Your task to perform on an android device: turn on javascript in the chrome app Image 0: 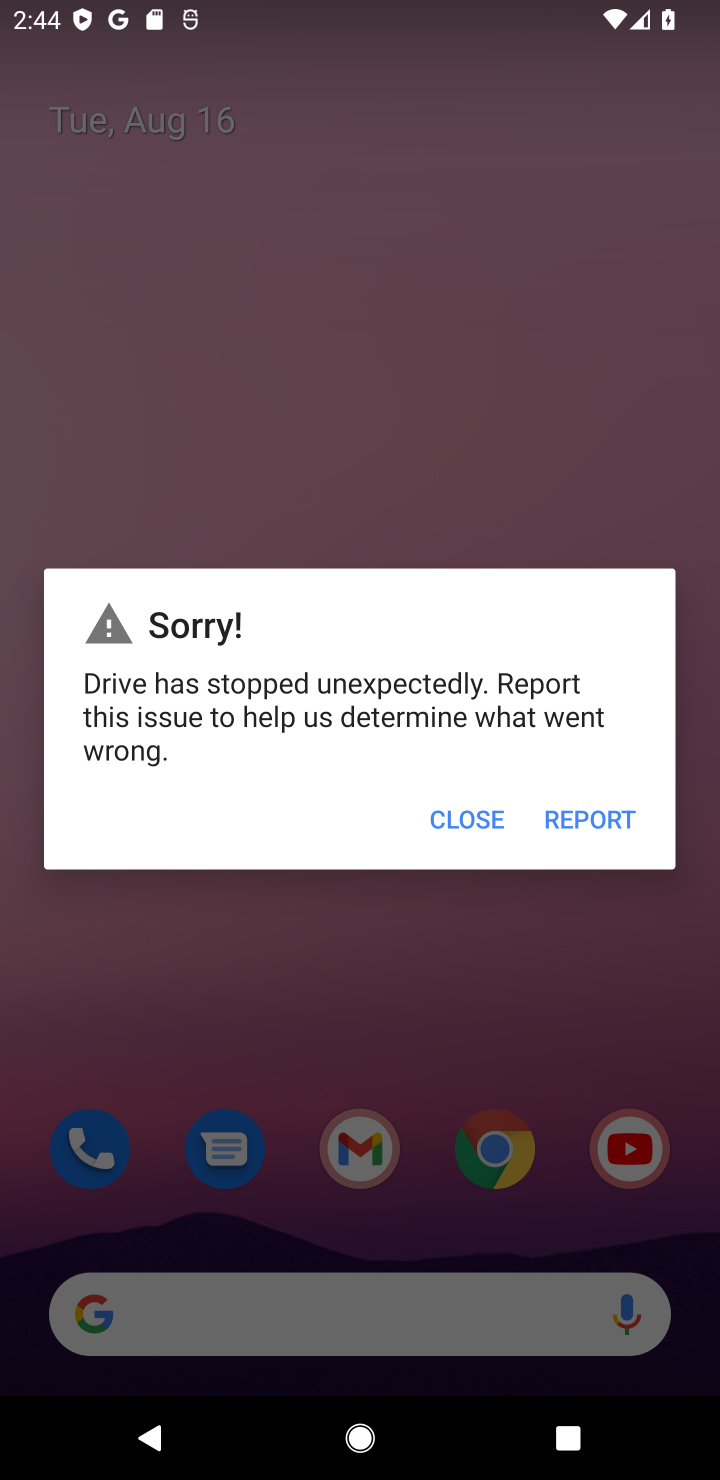
Step 0: click (478, 809)
Your task to perform on an android device: turn on javascript in the chrome app Image 1: 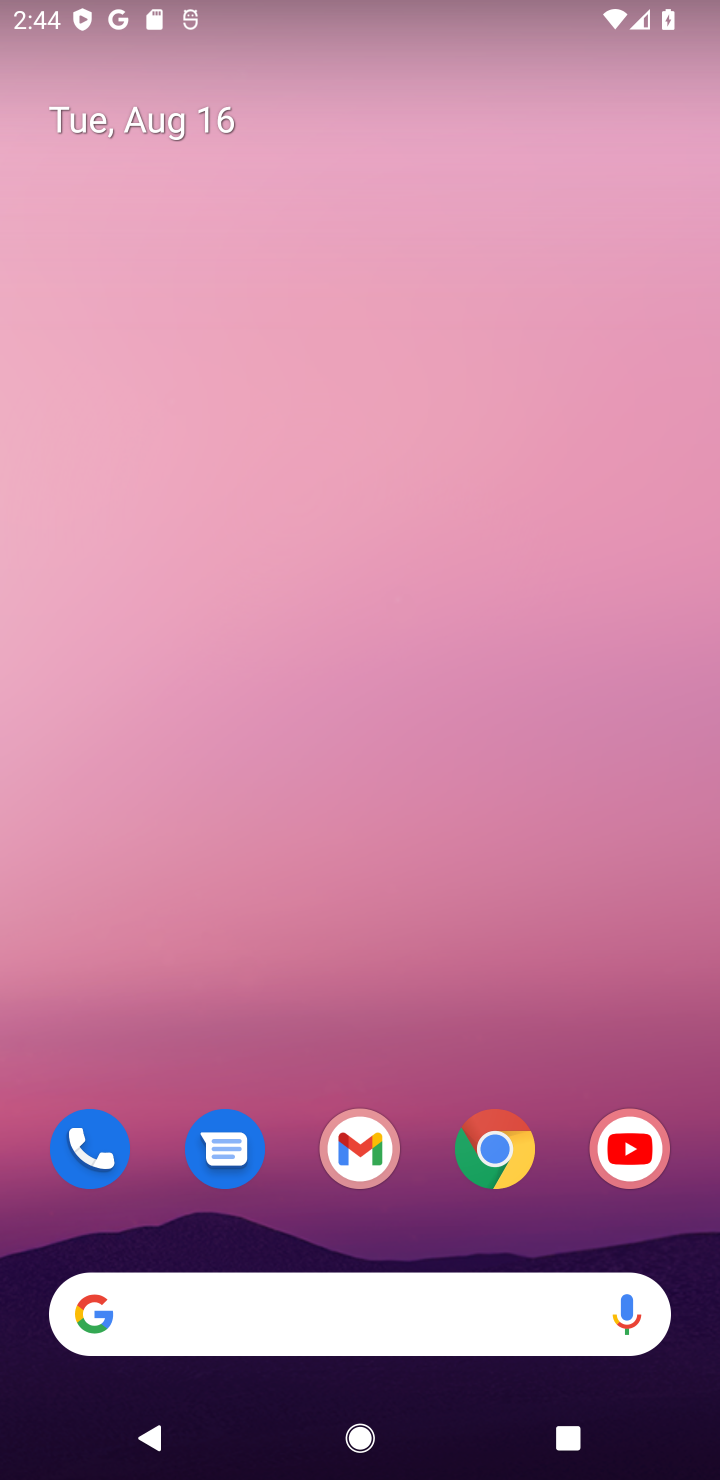
Step 1: click (485, 1157)
Your task to perform on an android device: turn on javascript in the chrome app Image 2: 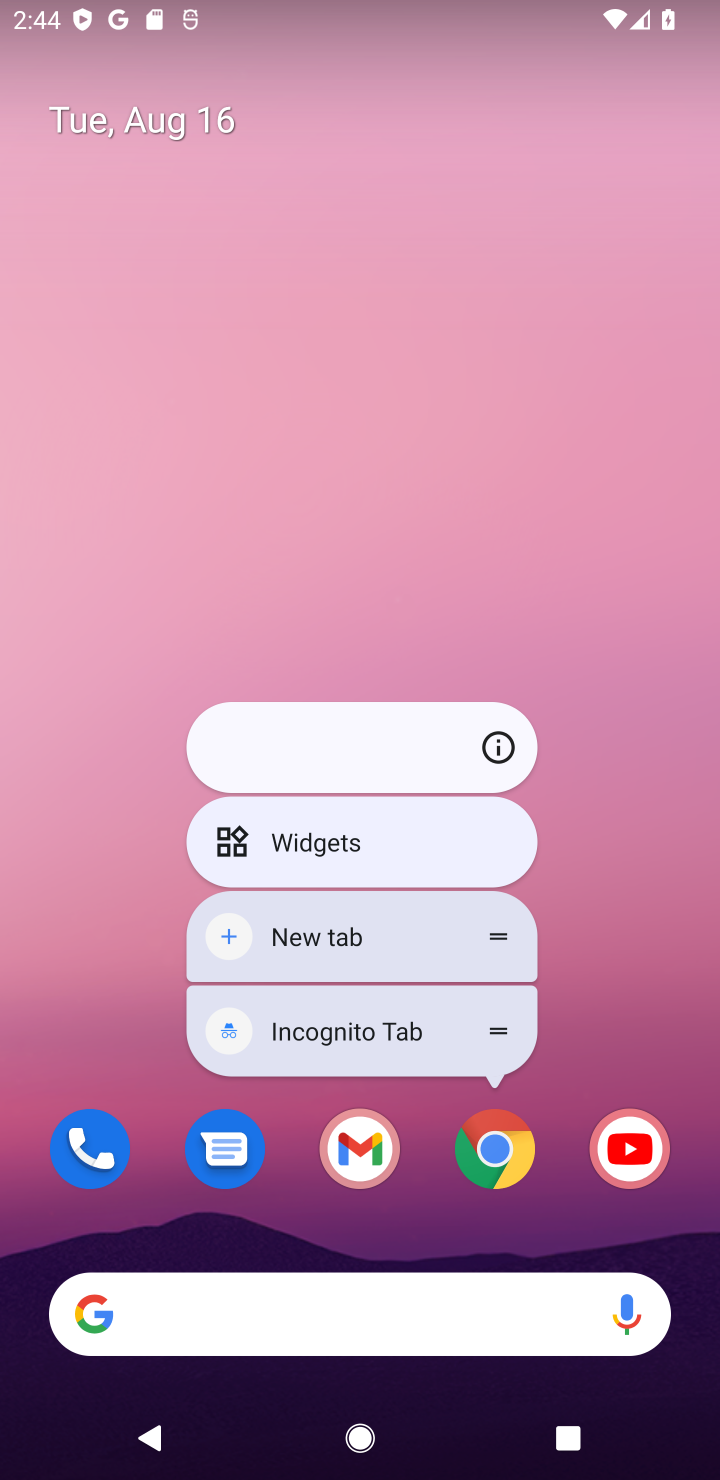
Step 2: click (497, 1157)
Your task to perform on an android device: turn on javascript in the chrome app Image 3: 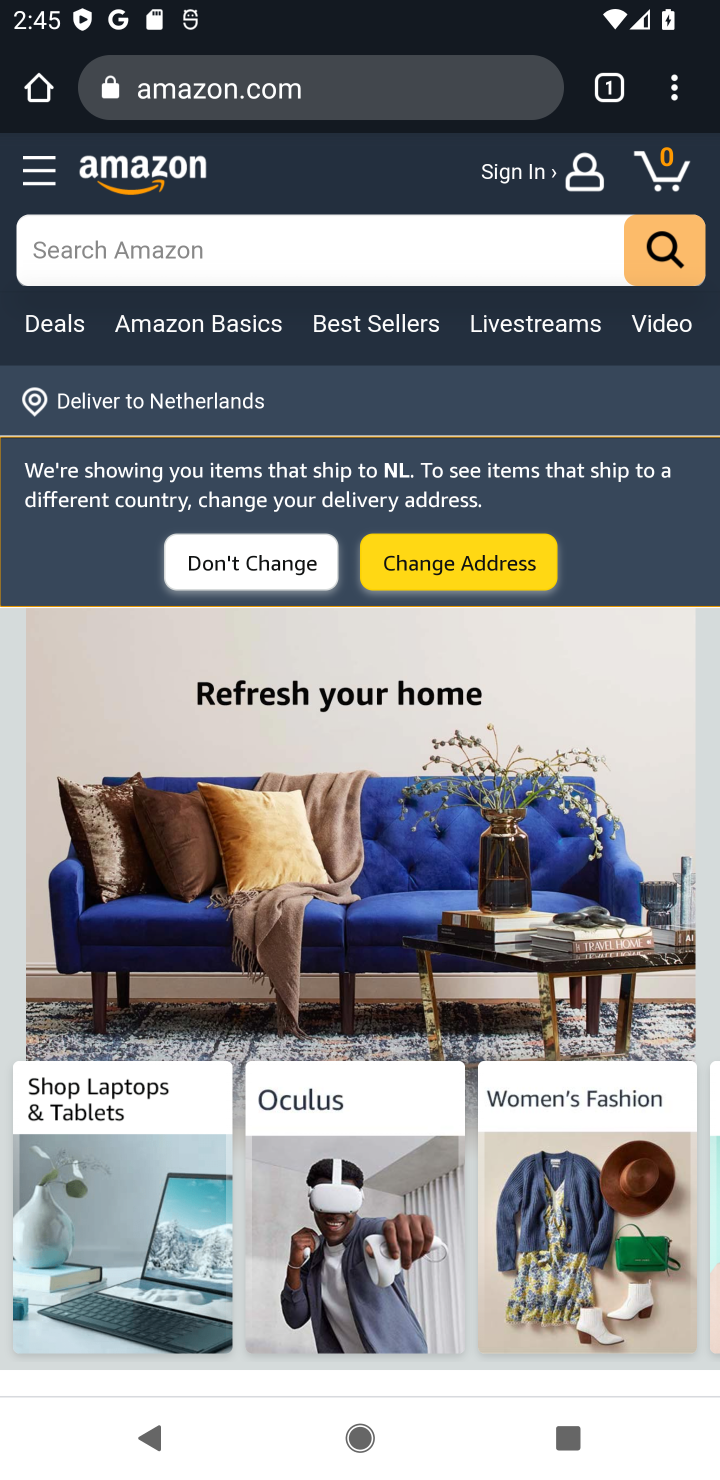
Step 3: click (671, 95)
Your task to perform on an android device: turn on javascript in the chrome app Image 4: 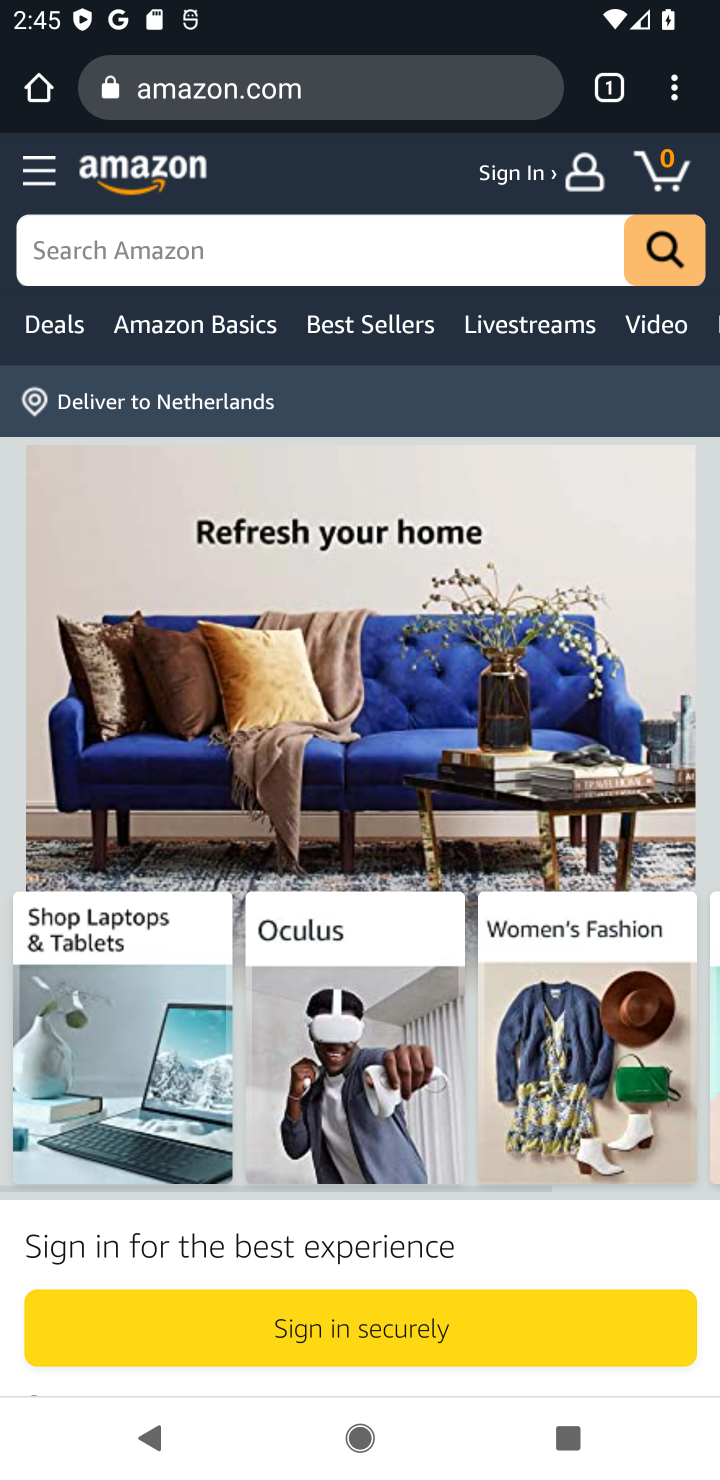
Step 4: click (671, 95)
Your task to perform on an android device: turn on javascript in the chrome app Image 5: 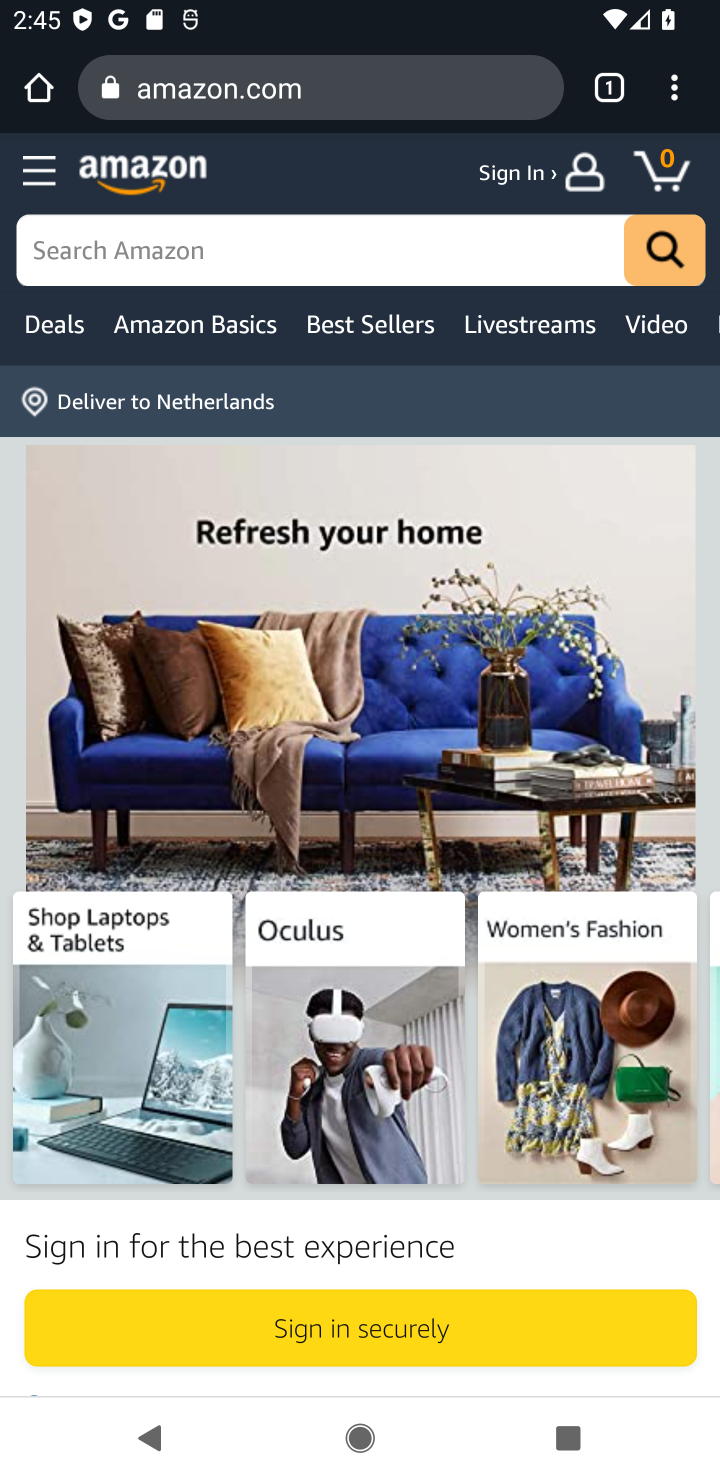
Step 5: click (671, 95)
Your task to perform on an android device: turn on javascript in the chrome app Image 6: 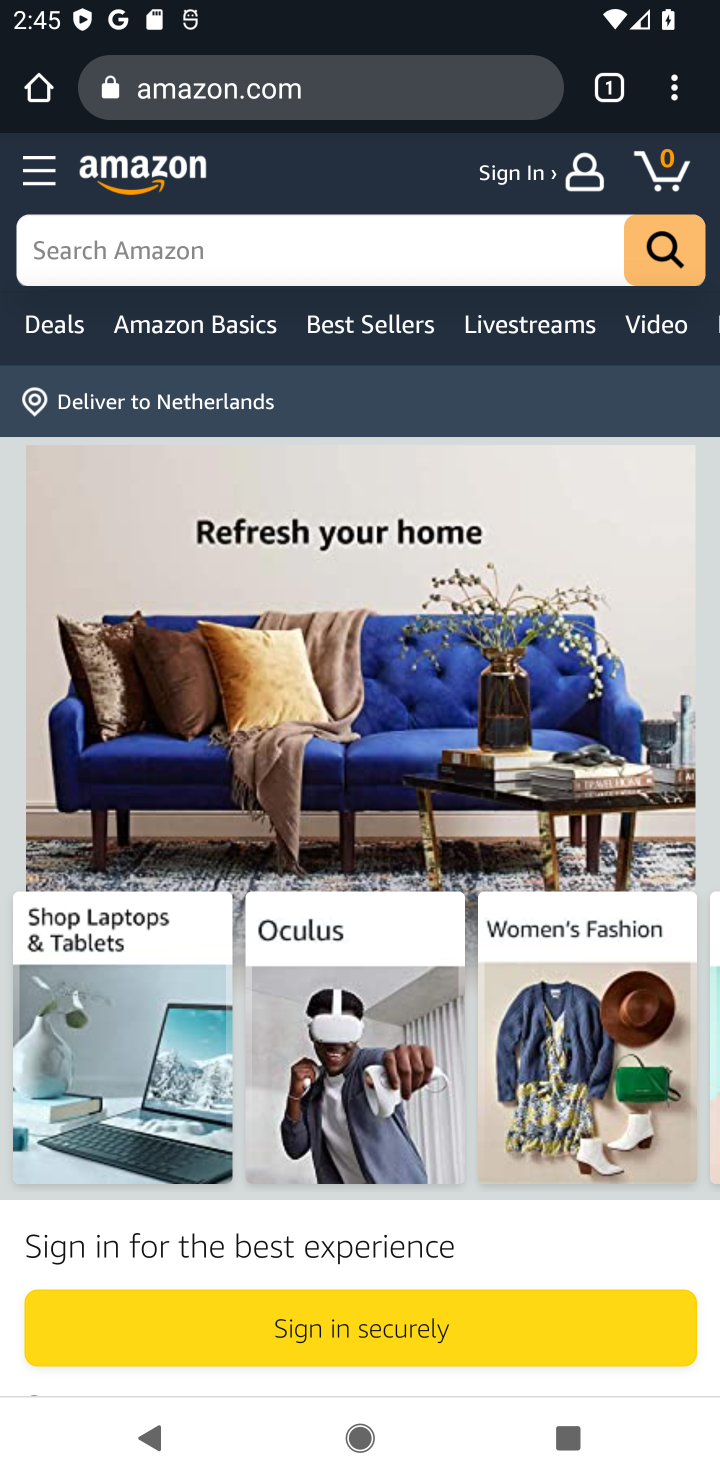
Step 6: click (671, 95)
Your task to perform on an android device: turn on javascript in the chrome app Image 7: 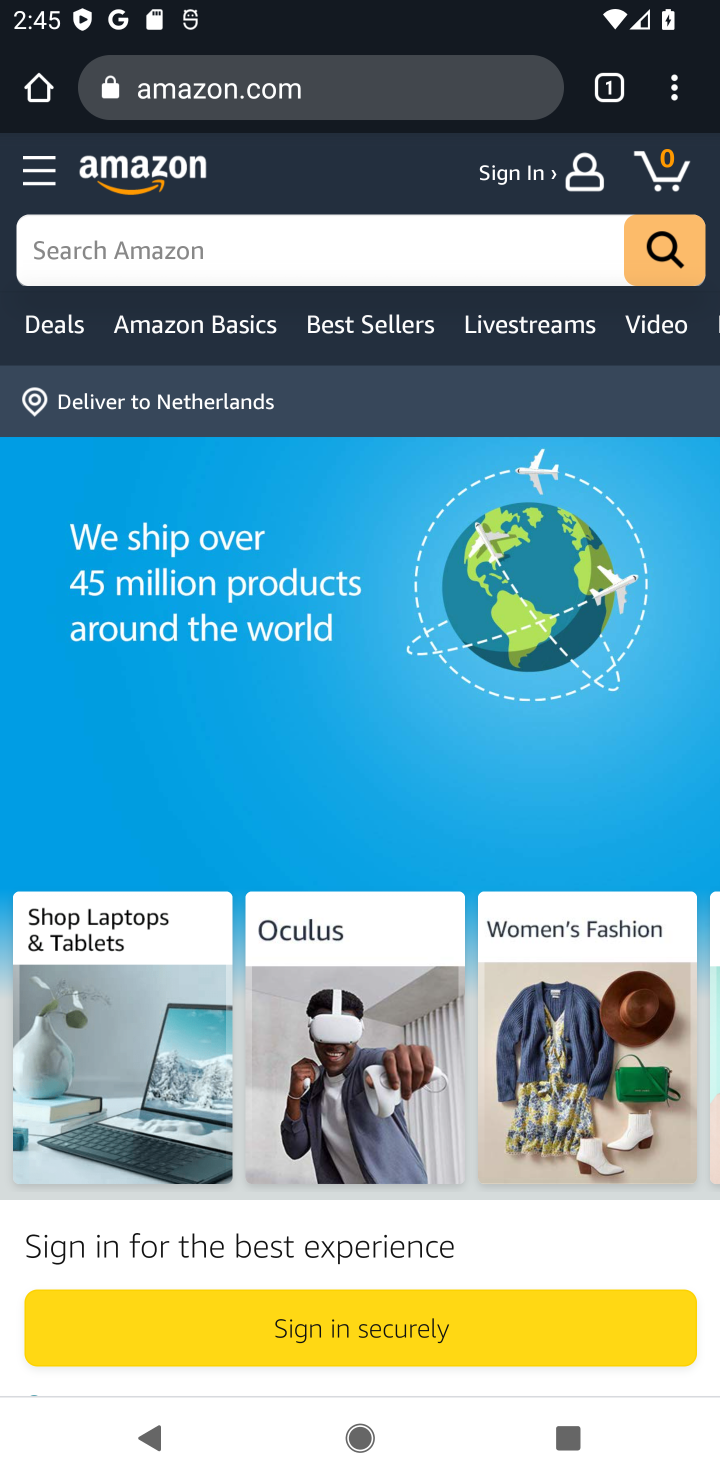
Step 7: click (671, 95)
Your task to perform on an android device: turn on javascript in the chrome app Image 8: 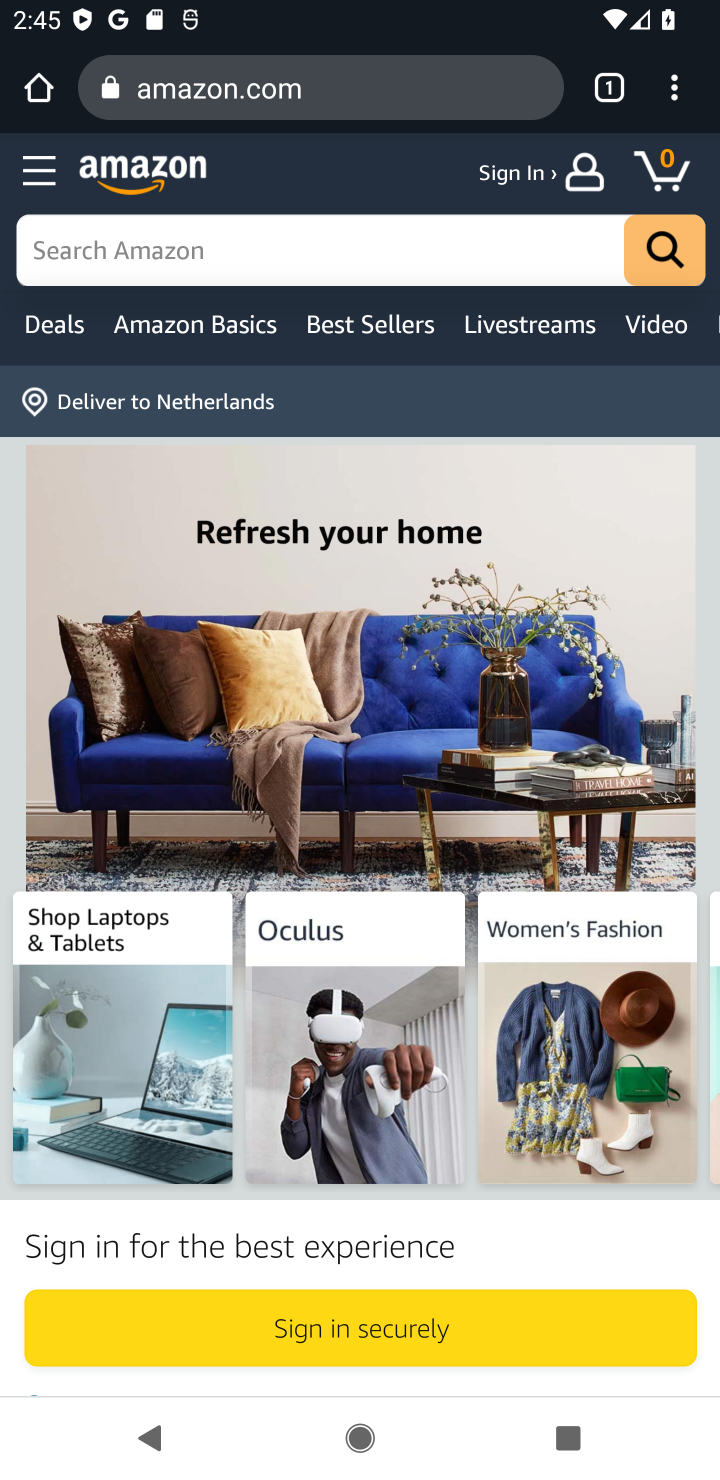
Step 8: click (676, 104)
Your task to perform on an android device: turn on javascript in the chrome app Image 9: 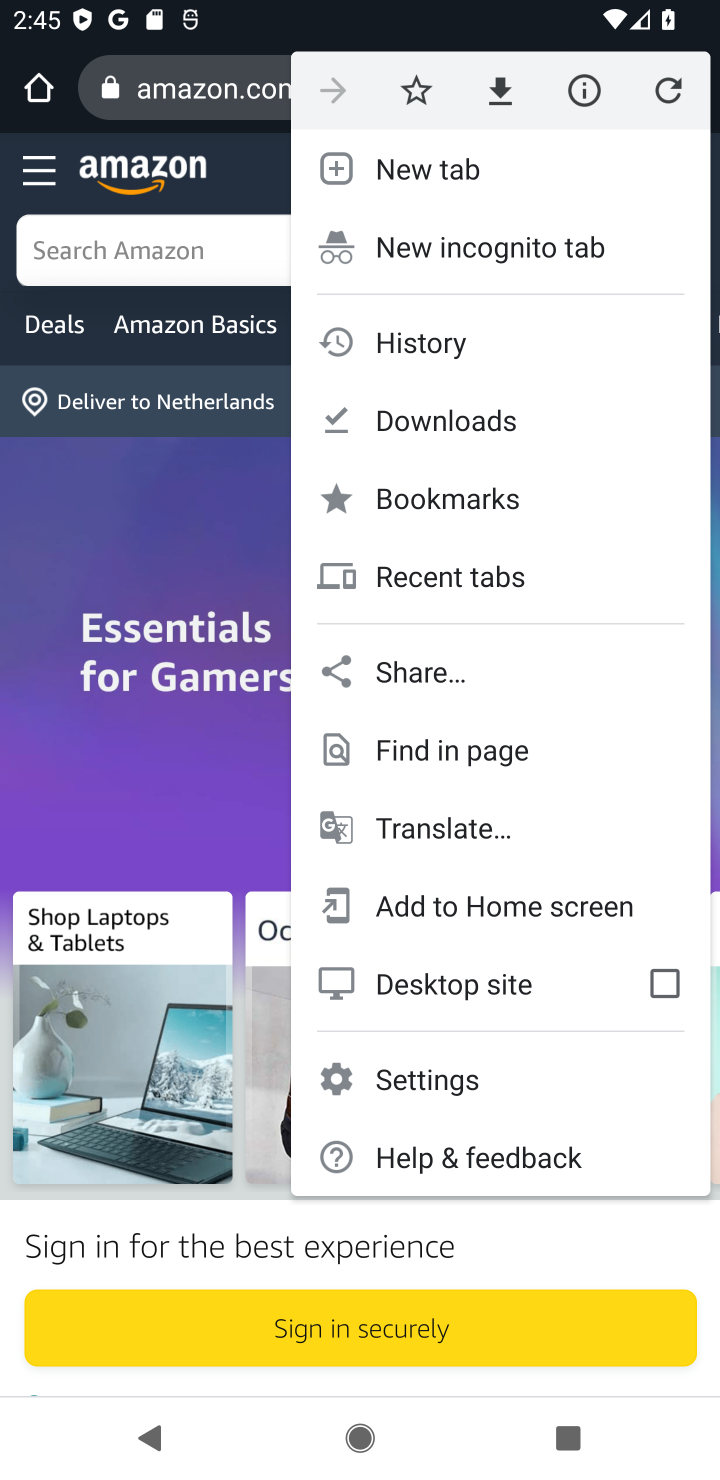
Step 9: click (452, 1069)
Your task to perform on an android device: turn on javascript in the chrome app Image 10: 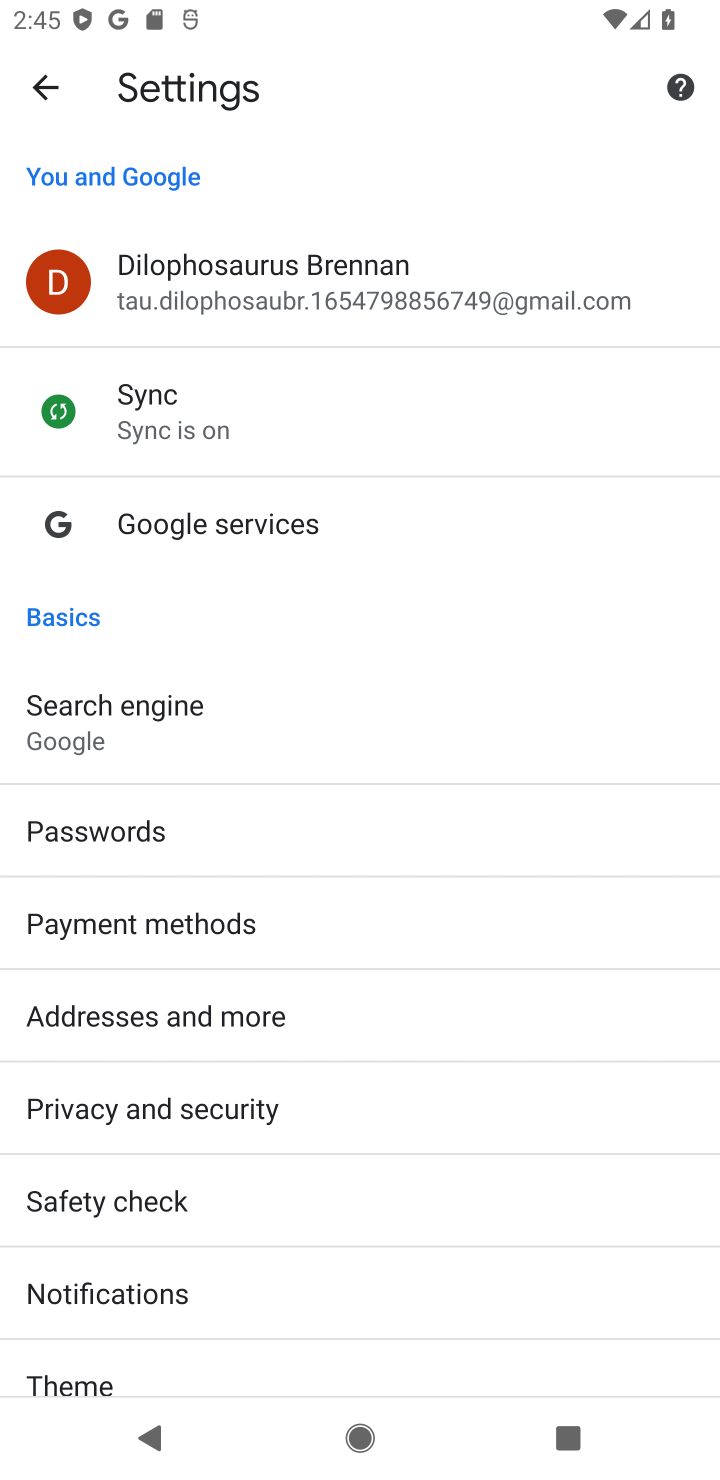
Step 10: drag from (439, 1122) to (473, 311)
Your task to perform on an android device: turn on javascript in the chrome app Image 11: 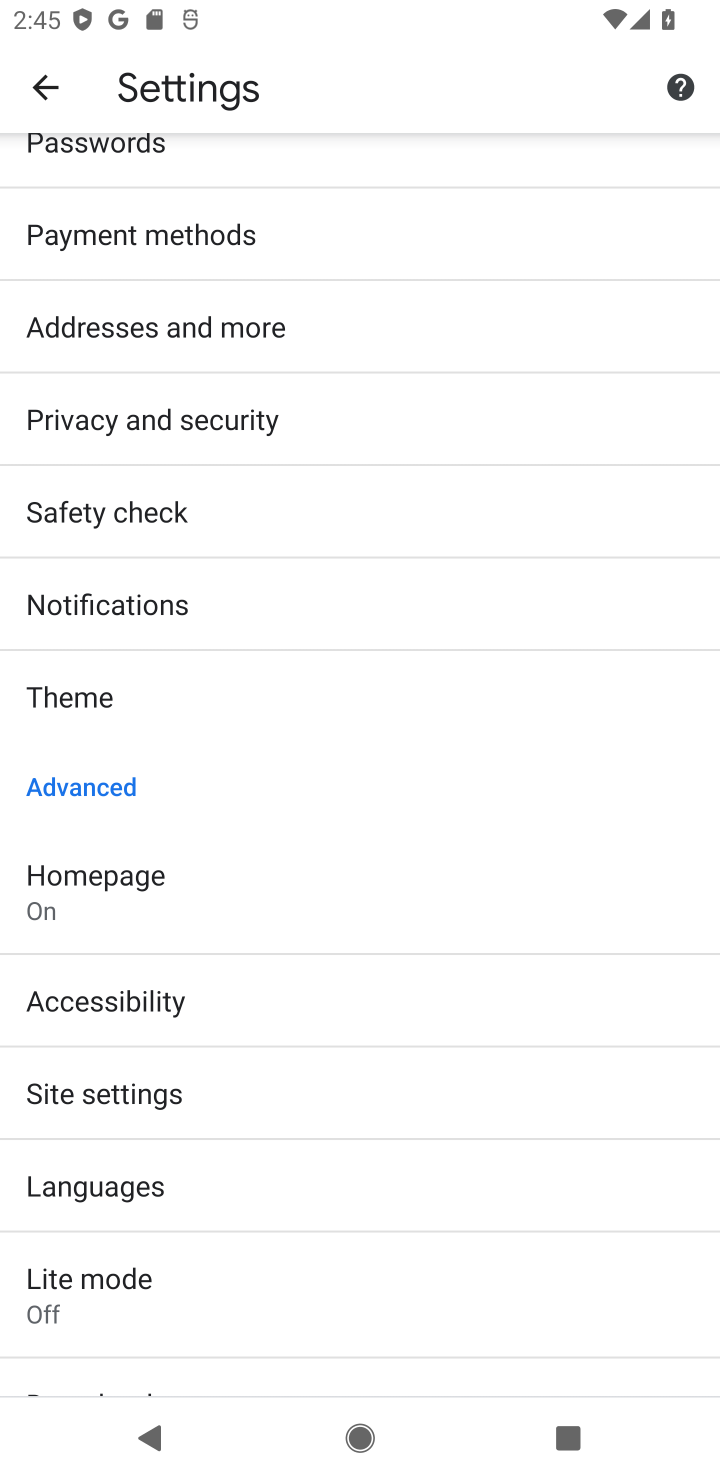
Step 11: click (294, 1093)
Your task to perform on an android device: turn on javascript in the chrome app Image 12: 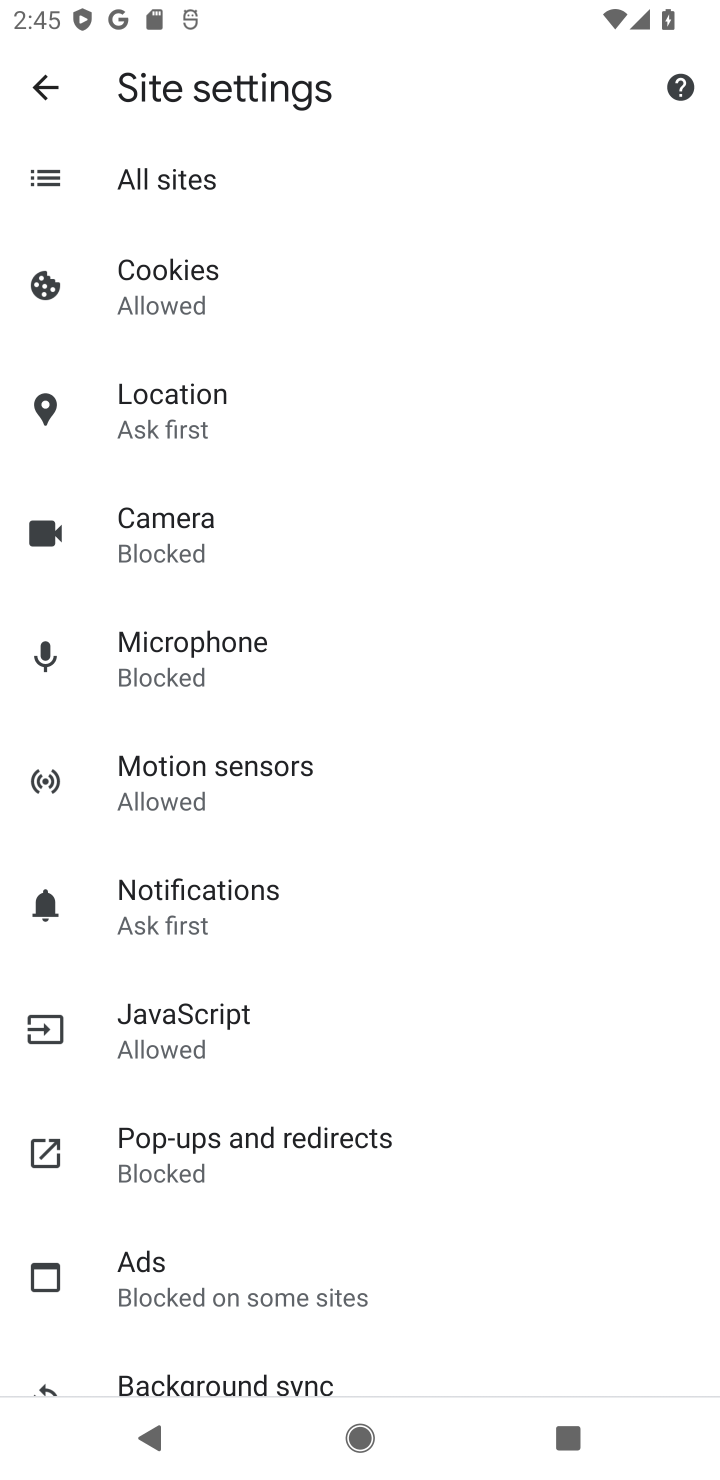
Step 12: click (288, 1026)
Your task to perform on an android device: turn on javascript in the chrome app Image 13: 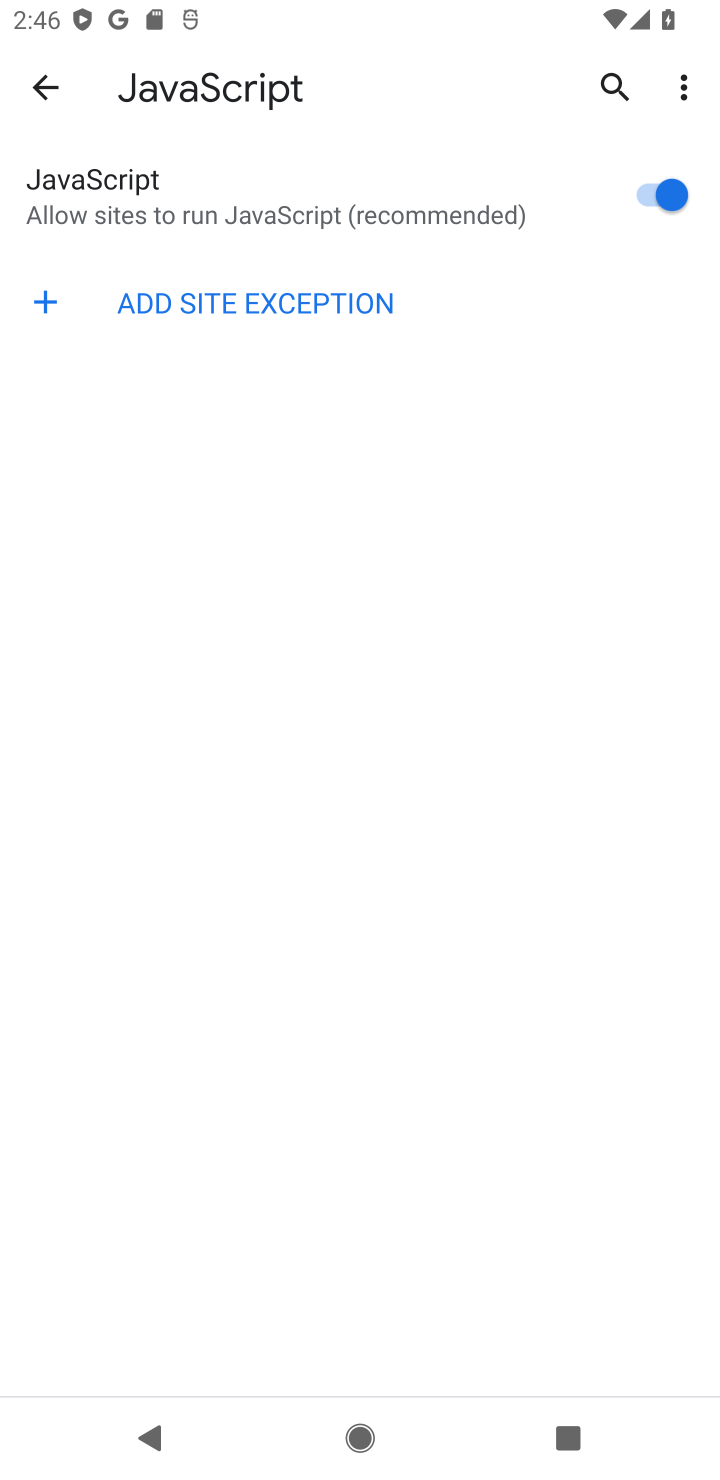
Step 13: task complete